Your task to perform on an android device: Show me recent news Image 0: 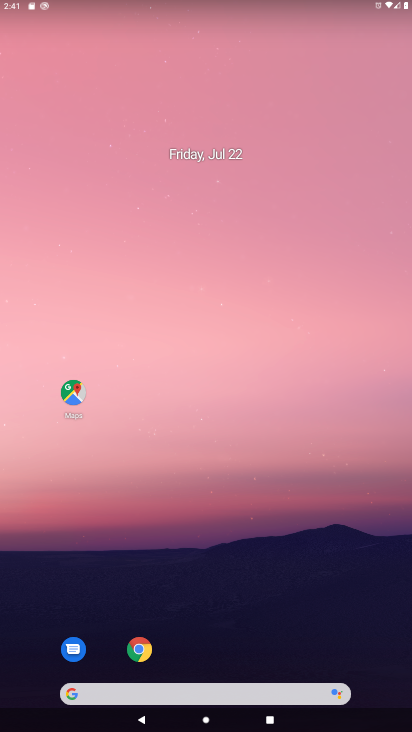
Step 0: drag from (1, 219) to (38, 409)
Your task to perform on an android device: Show me recent news Image 1: 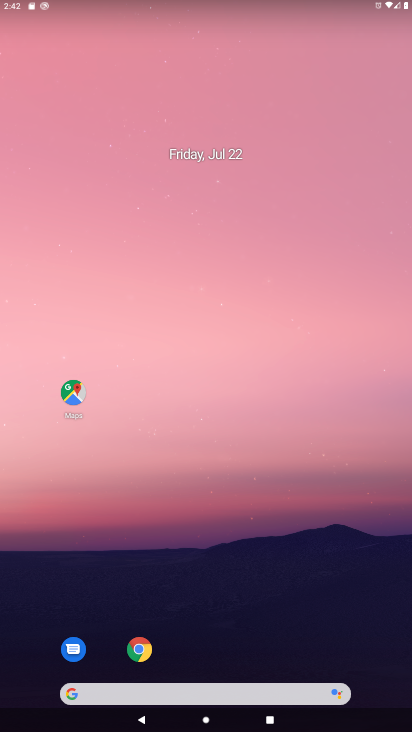
Step 1: task complete